Your task to perform on an android device: Find coffee shops on Maps Image 0: 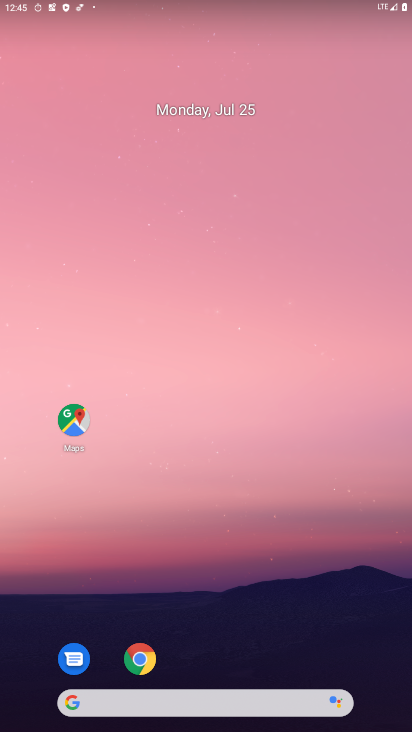
Step 0: click (71, 425)
Your task to perform on an android device: Find coffee shops on Maps Image 1: 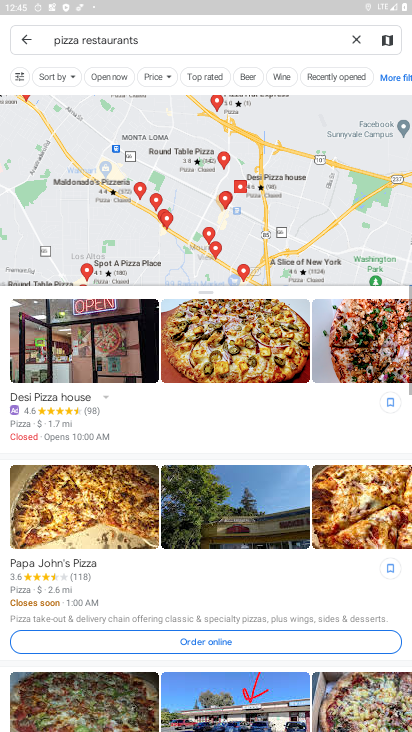
Step 1: click (17, 41)
Your task to perform on an android device: Find coffee shops on Maps Image 2: 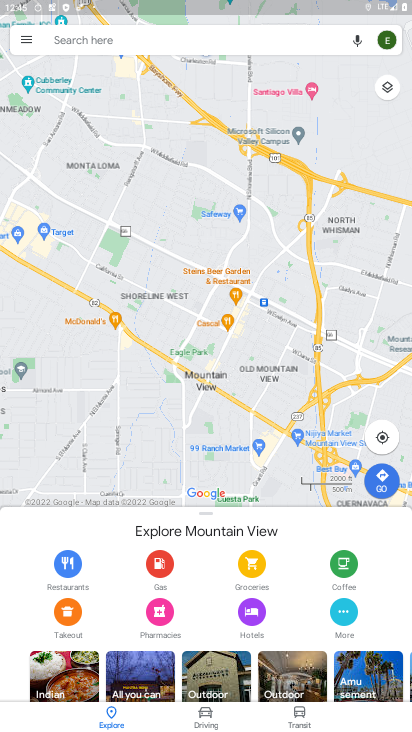
Step 2: click (96, 29)
Your task to perform on an android device: Find coffee shops on Maps Image 3: 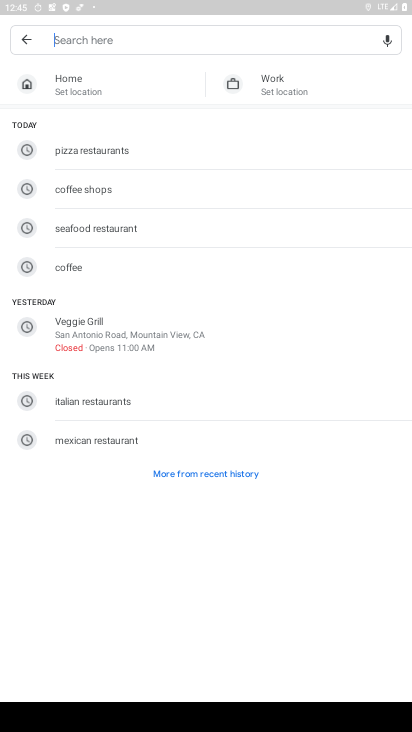
Step 3: click (105, 188)
Your task to perform on an android device: Find coffee shops on Maps Image 4: 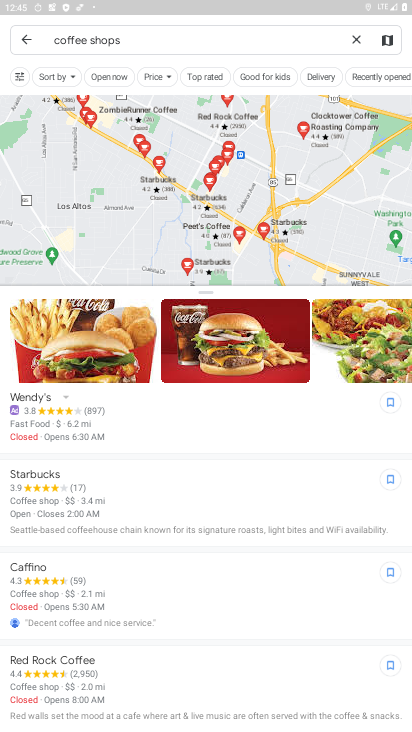
Step 4: task complete